Your task to perform on an android device: Open Amazon Image 0: 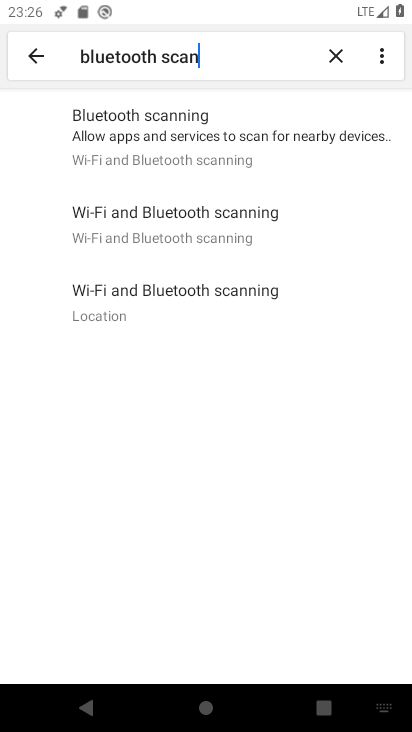
Step 0: drag from (193, 590) to (259, 168)
Your task to perform on an android device: Open Amazon Image 1: 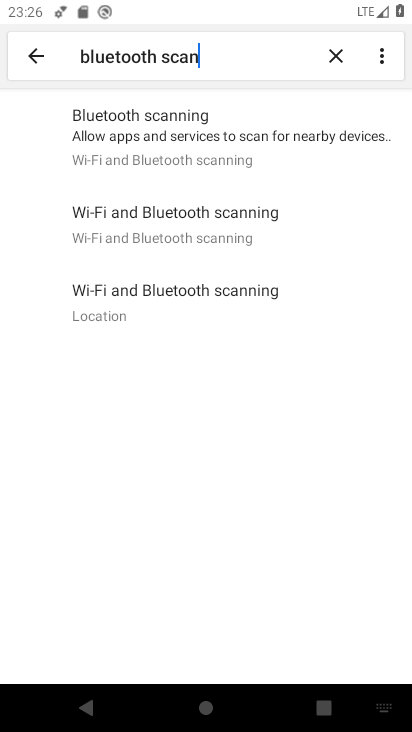
Step 1: press home button
Your task to perform on an android device: Open Amazon Image 2: 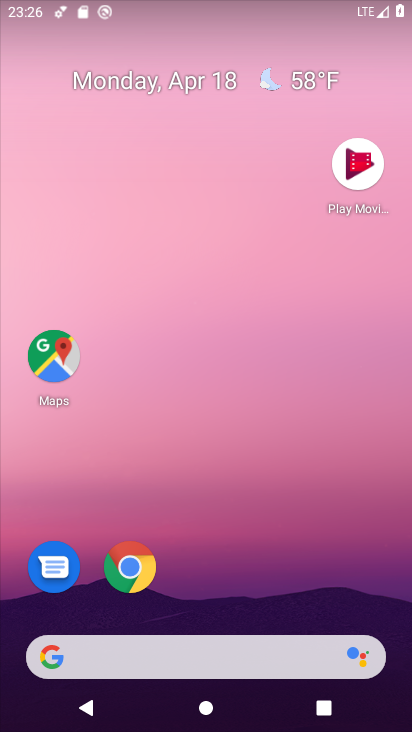
Step 2: drag from (192, 604) to (228, 145)
Your task to perform on an android device: Open Amazon Image 3: 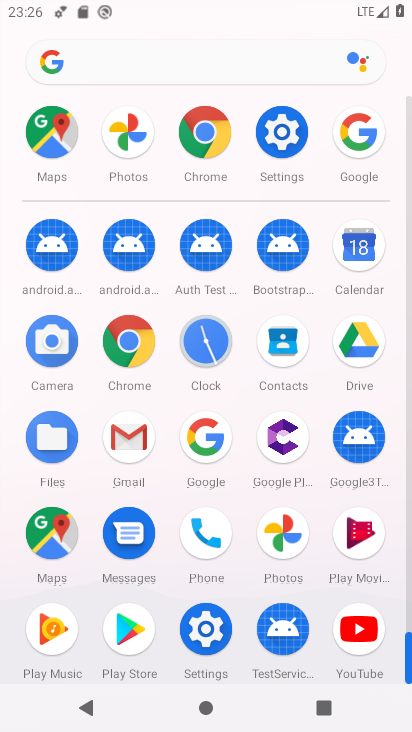
Step 3: drag from (164, 631) to (154, 101)
Your task to perform on an android device: Open Amazon Image 4: 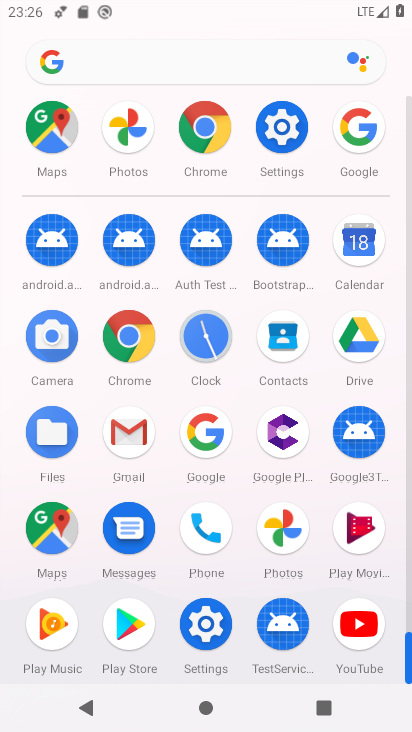
Step 4: click (125, 336)
Your task to perform on an android device: Open Amazon Image 5: 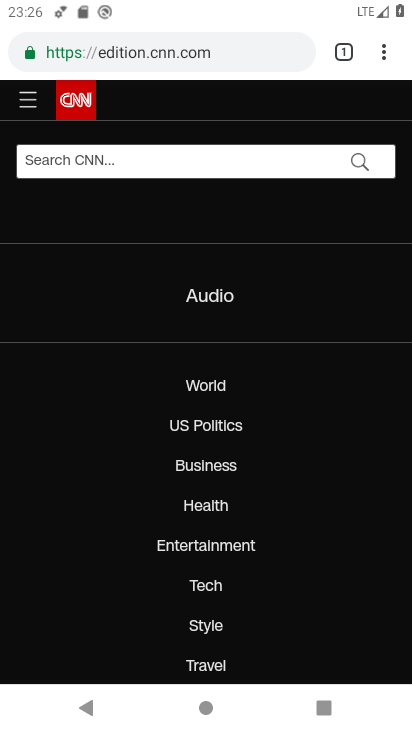
Step 5: drag from (263, 559) to (261, 199)
Your task to perform on an android device: Open Amazon Image 6: 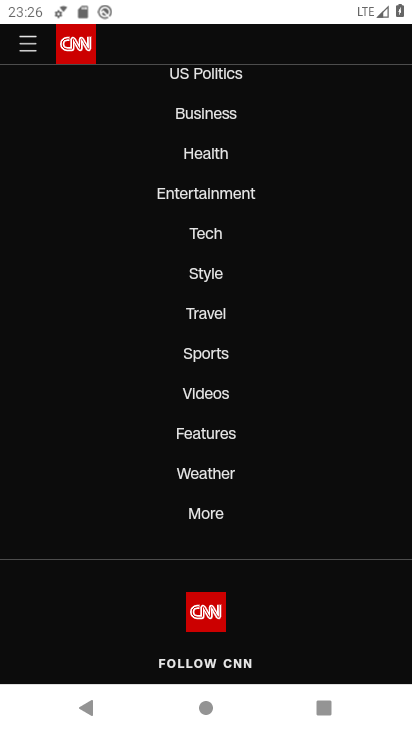
Step 6: drag from (319, 106) to (305, 574)
Your task to perform on an android device: Open Amazon Image 7: 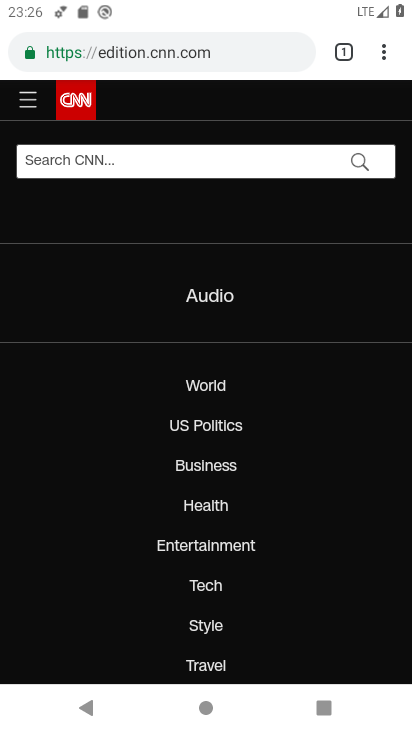
Step 7: click (344, 49)
Your task to perform on an android device: Open Amazon Image 8: 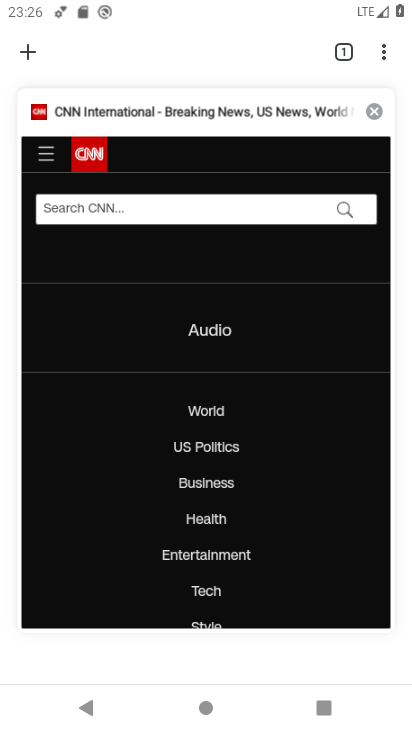
Step 8: click (22, 59)
Your task to perform on an android device: Open Amazon Image 9: 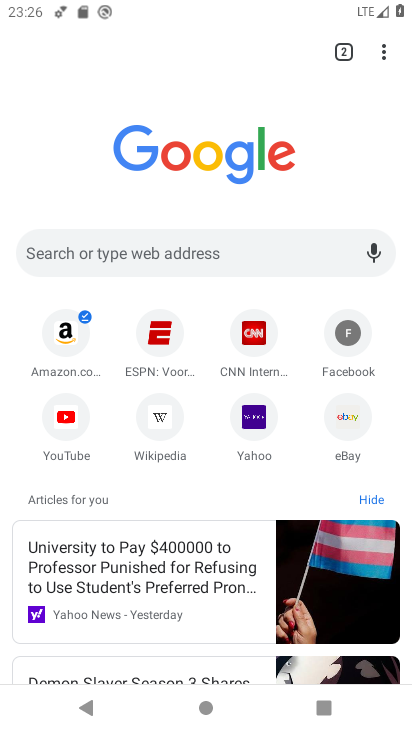
Step 9: click (186, 248)
Your task to perform on an android device: Open Amazon Image 10: 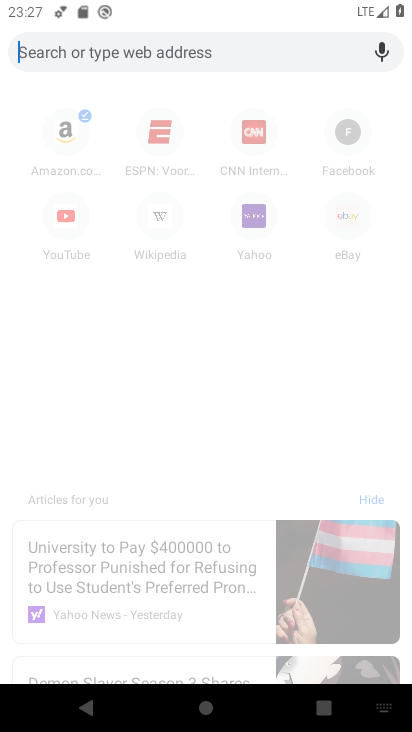
Step 10: type "amazon"
Your task to perform on an android device: Open Amazon Image 11: 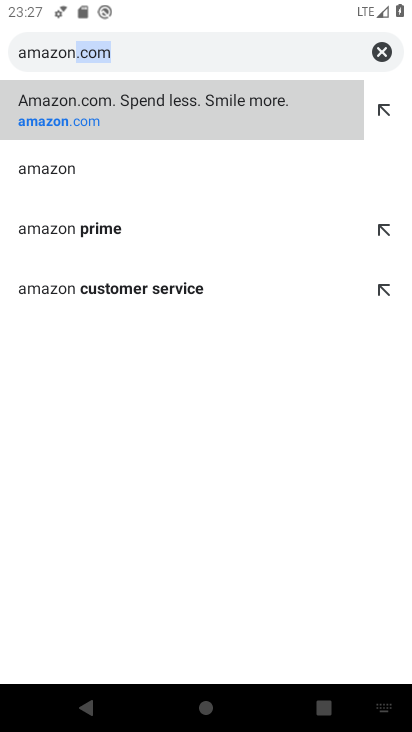
Step 11: click (138, 113)
Your task to perform on an android device: Open Amazon Image 12: 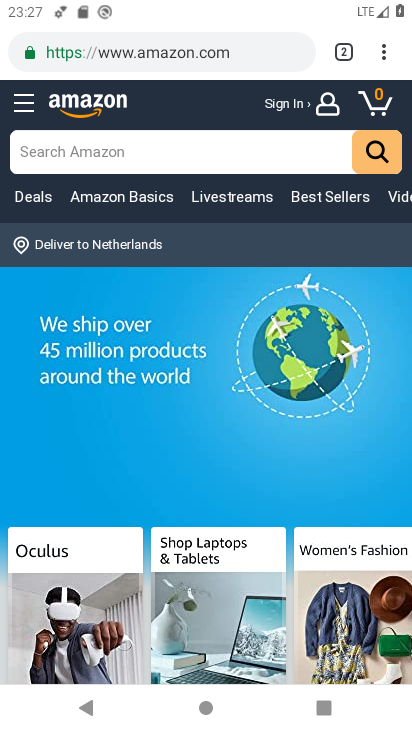
Step 12: task complete